Your task to perform on an android device: Is it going to rain today? Image 0: 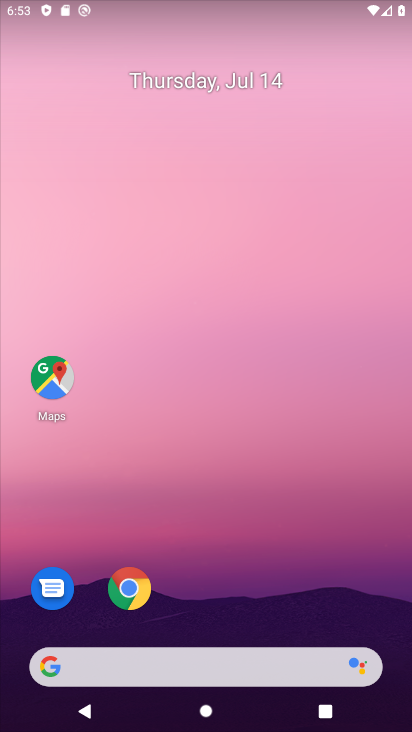
Step 0: drag from (358, 637) to (255, 5)
Your task to perform on an android device: Is it going to rain today? Image 1: 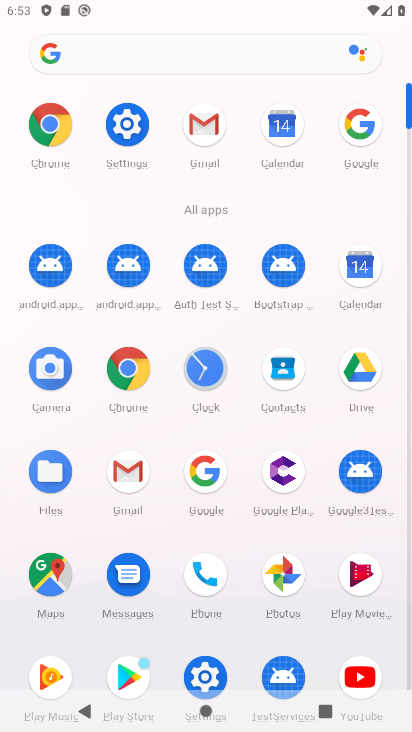
Step 1: click (209, 472)
Your task to perform on an android device: Is it going to rain today? Image 2: 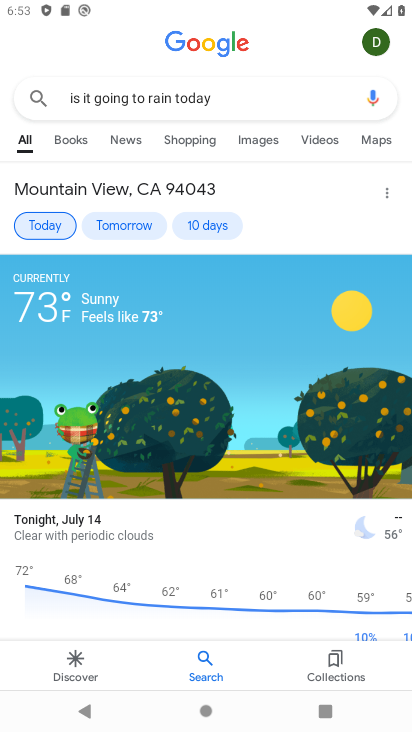
Step 2: press back button
Your task to perform on an android device: Is it going to rain today? Image 3: 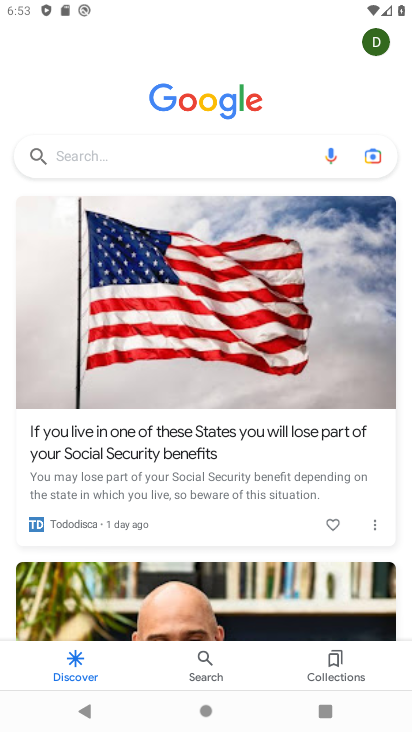
Step 3: click (178, 159)
Your task to perform on an android device: Is it going to rain today? Image 4: 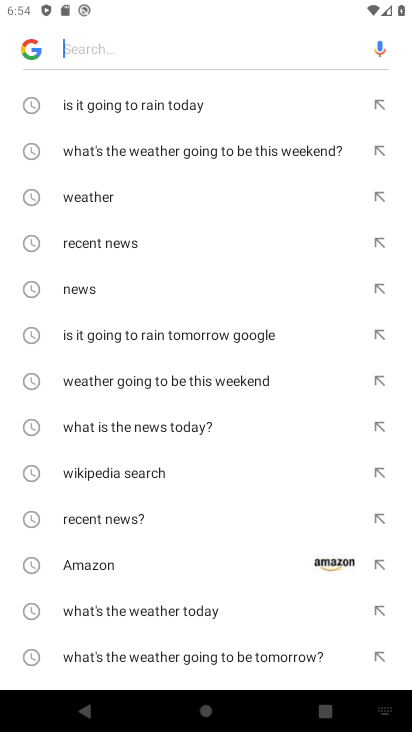
Step 4: click (144, 100)
Your task to perform on an android device: Is it going to rain today? Image 5: 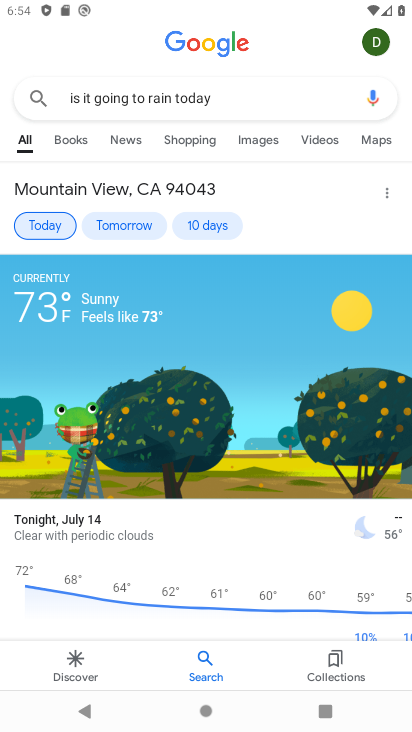
Step 5: task complete